Your task to perform on an android device: Open Youtube and go to the subscriptions tab Image 0: 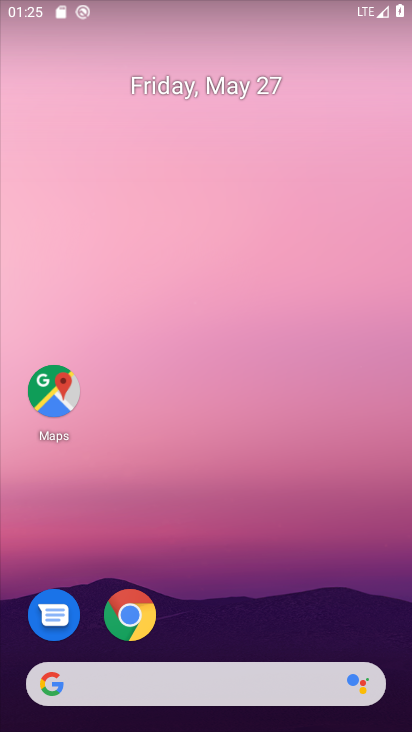
Step 0: drag from (382, 644) to (377, 272)
Your task to perform on an android device: Open Youtube and go to the subscriptions tab Image 1: 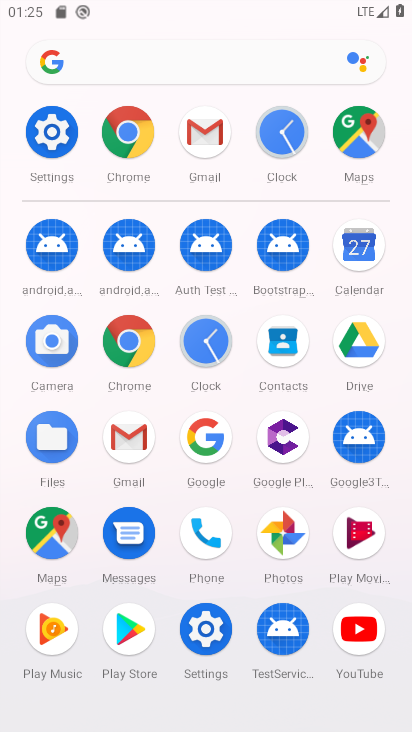
Step 1: click (369, 634)
Your task to perform on an android device: Open Youtube and go to the subscriptions tab Image 2: 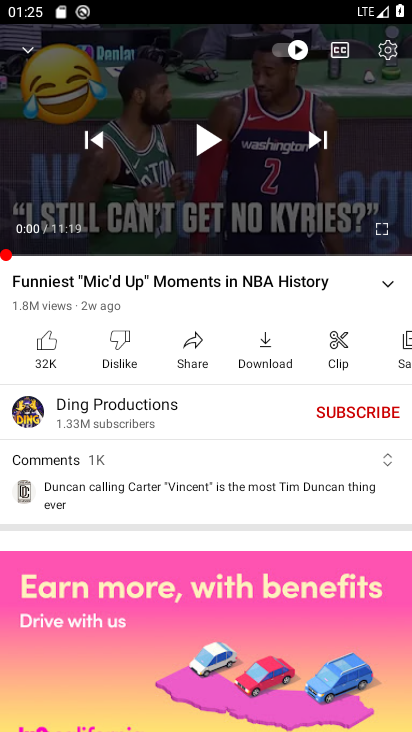
Step 2: press back button
Your task to perform on an android device: Open Youtube and go to the subscriptions tab Image 3: 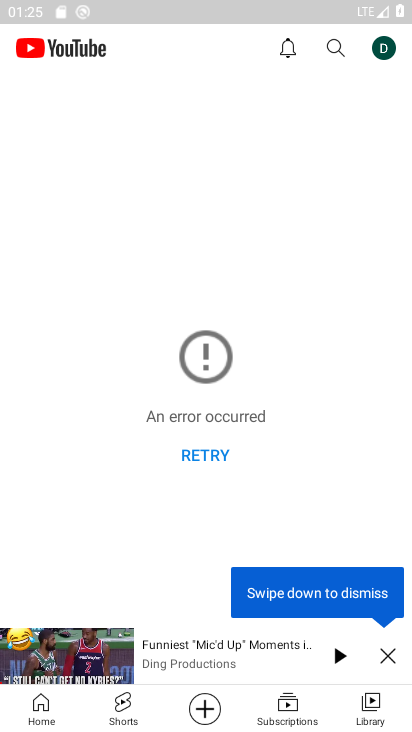
Step 3: click (287, 703)
Your task to perform on an android device: Open Youtube and go to the subscriptions tab Image 4: 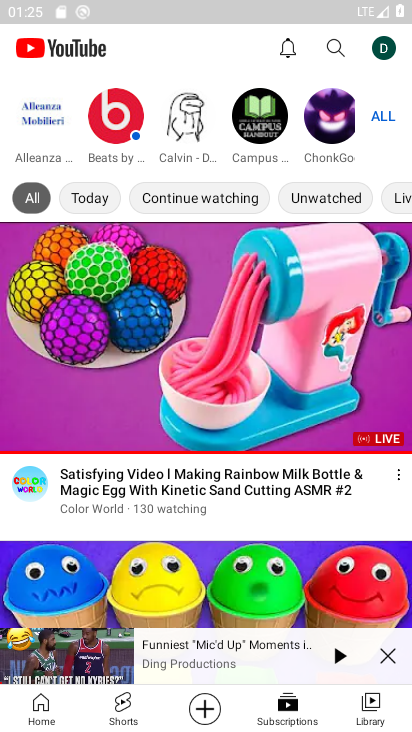
Step 4: task complete